Your task to perform on an android device: turn notification dots off Image 0: 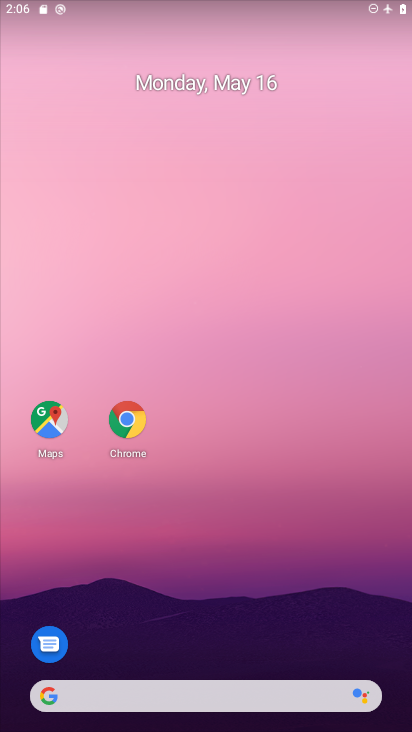
Step 0: drag from (235, 571) to (130, 4)
Your task to perform on an android device: turn notification dots off Image 1: 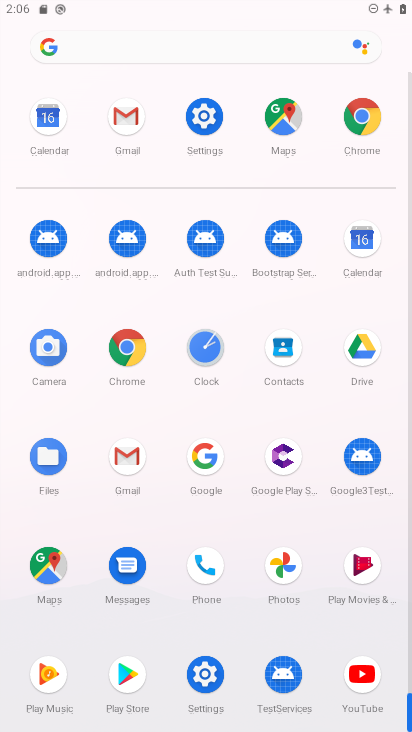
Step 1: click (195, 125)
Your task to perform on an android device: turn notification dots off Image 2: 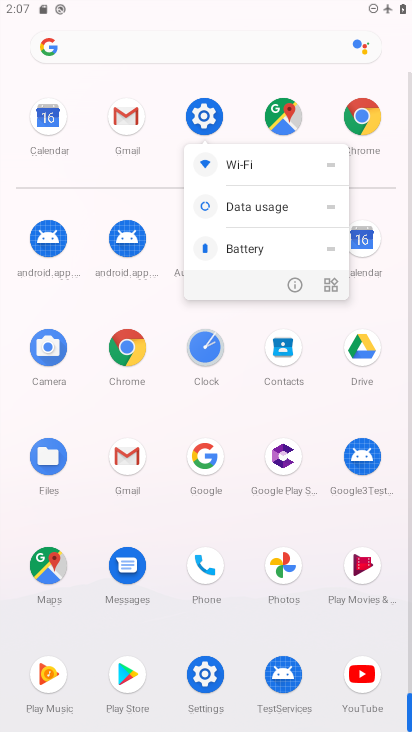
Step 2: click (300, 287)
Your task to perform on an android device: turn notification dots off Image 3: 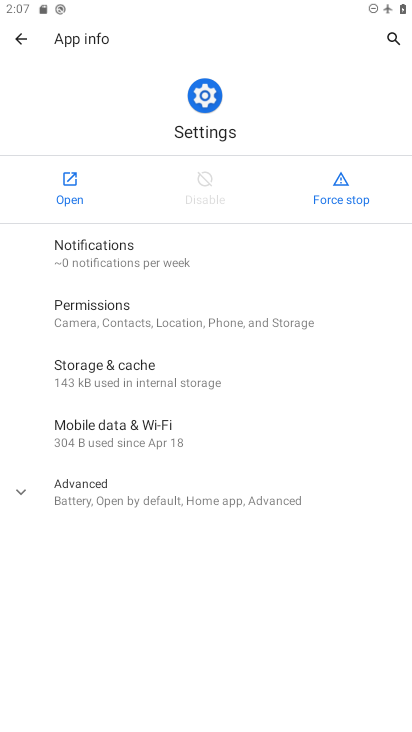
Step 3: click (73, 192)
Your task to perform on an android device: turn notification dots off Image 4: 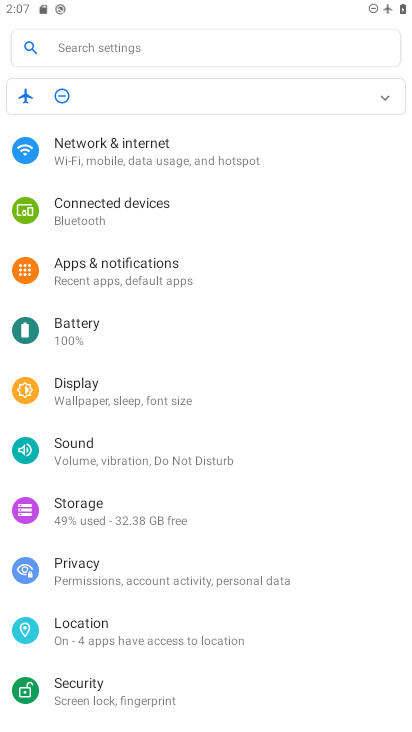
Step 4: drag from (155, 584) to (252, 238)
Your task to perform on an android device: turn notification dots off Image 5: 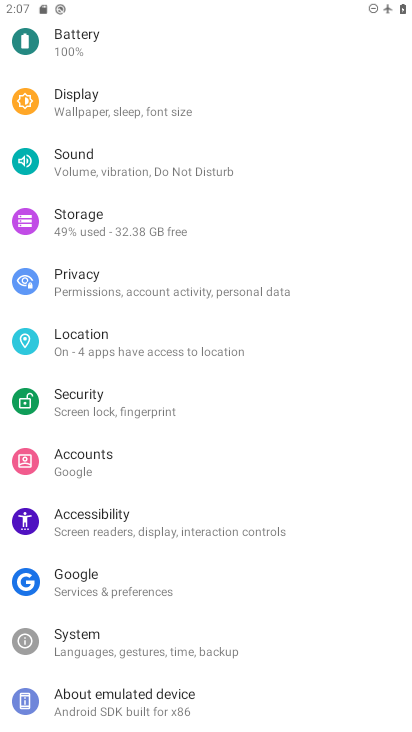
Step 5: drag from (167, 569) to (311, 174)
Your task to perform on an android device: turn notification dots off Image 6: 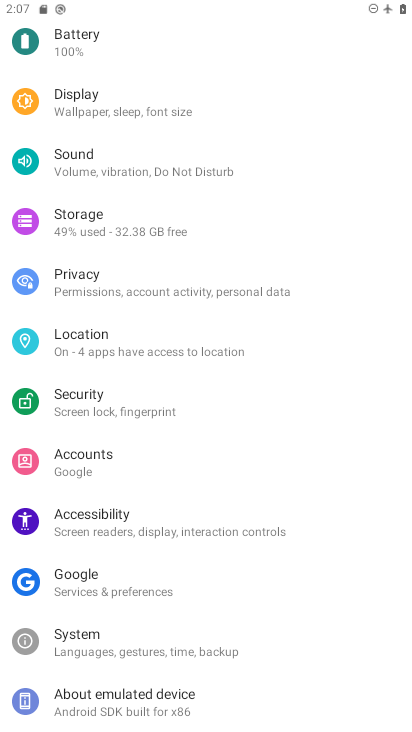
Step 6: drag from (194, 557) to (261, 225)
Your task to perform on an android device: turn notification dots off Image 7: 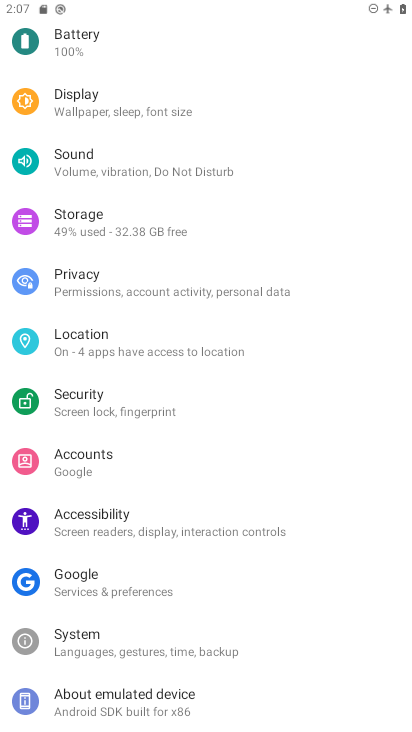
Step 7: drag from (183, 596) to (256, 148)
Your task to perform on an android device: turn notification dots off Image 8: 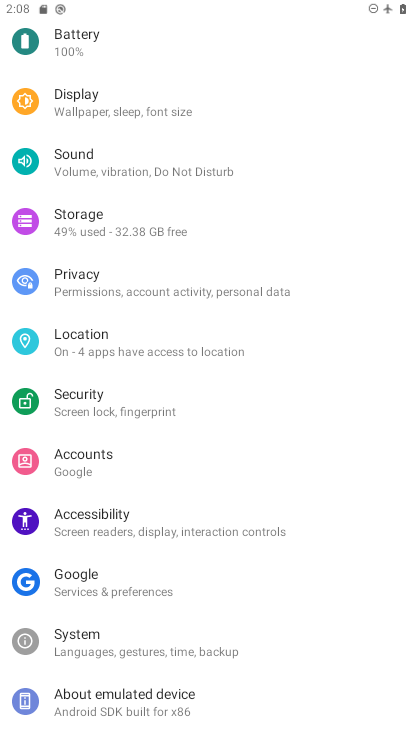
Step 8: drag from (121, 98) to (212, 562)
Your task to perform on an android device: turn notification dots off Image 9: 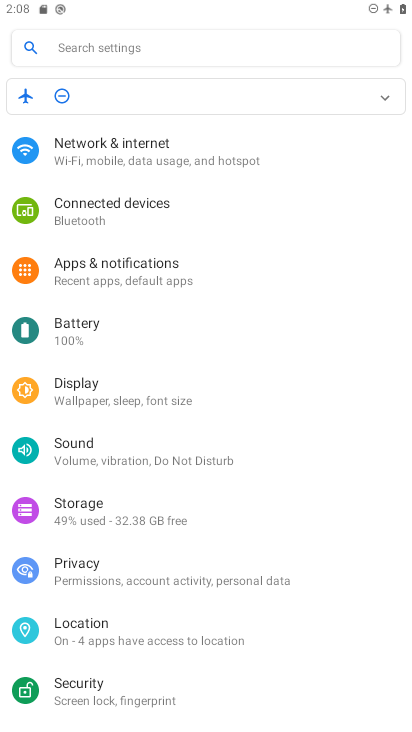
Step 9: click (159, 273)
Your task to perform on an android device: turn notification dots off Image 10: 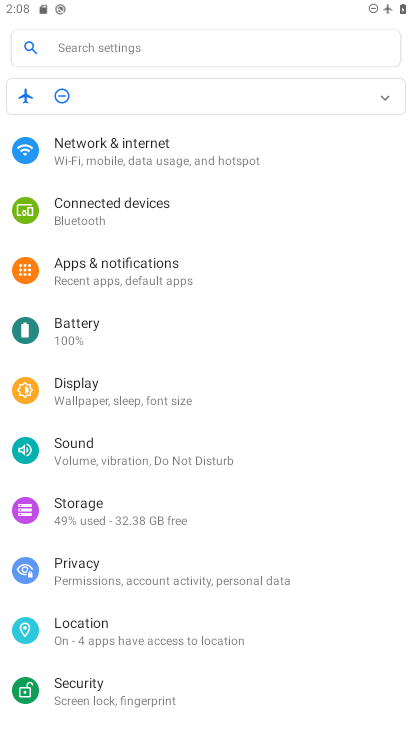
Step 10: click (159, 273)
Your task to perform on an android device: turn notification dots off Image 11: 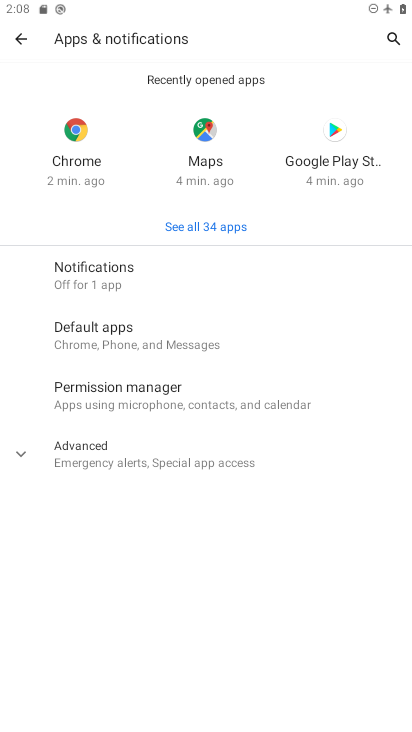
Step 11: click (133, 295)
Your task to perform on an android device: turn notification dots off Image 12: 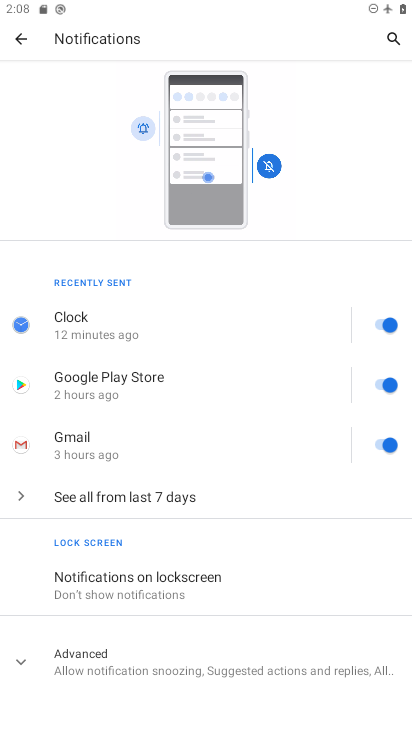
Step 12: drag from (246, 614) to (399, 100)
Your task to perform on an android device: turn notification dots off Image 13: 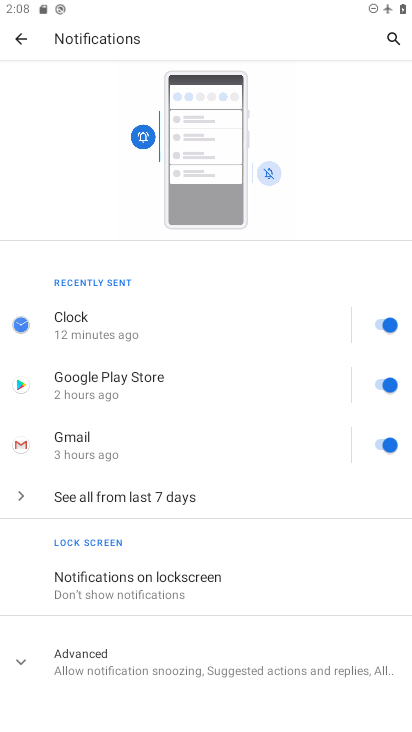
Step 13: click (155, 661)
Your task to perform on an android device: turn notification dots off Image 14: 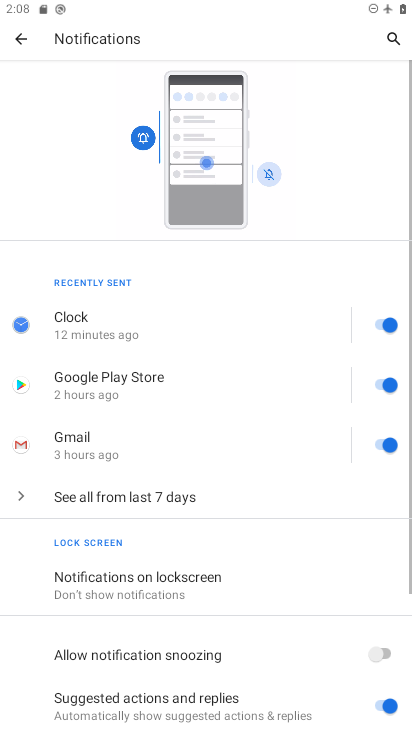
Step 14: drag from (155, 661) to (343, 143)
Your task to perform on an android device: turn notification dots off Image 15: 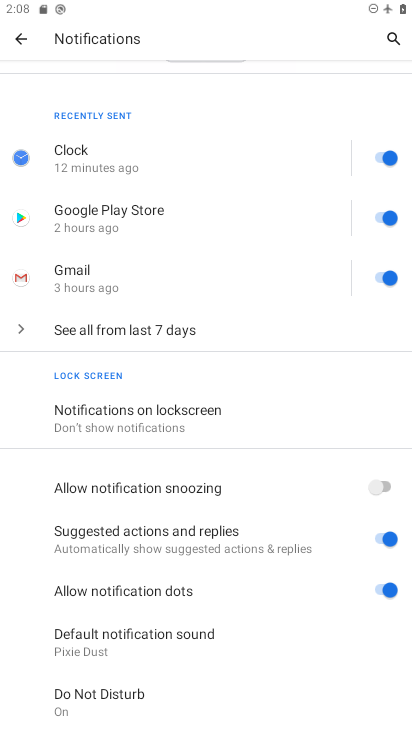
Step 15: drag from (215, 669) to (328, 217)
Your task to perform on an android device: turn notification dots off Image 16: 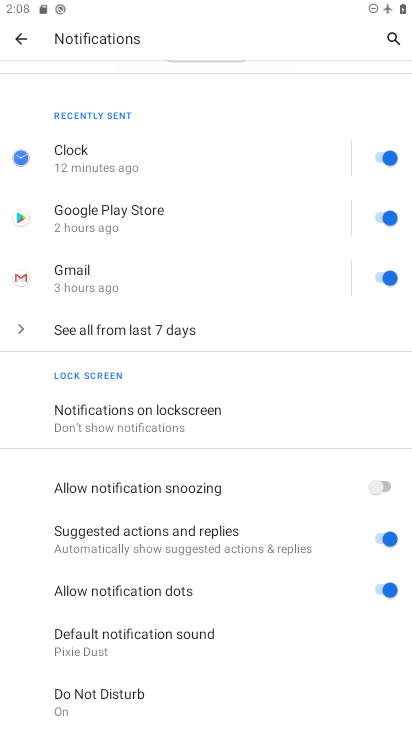
Step 16: drag from (253, 686) to (242, 284)
Your task to perform on an android device: turn notification dots off Image 17: 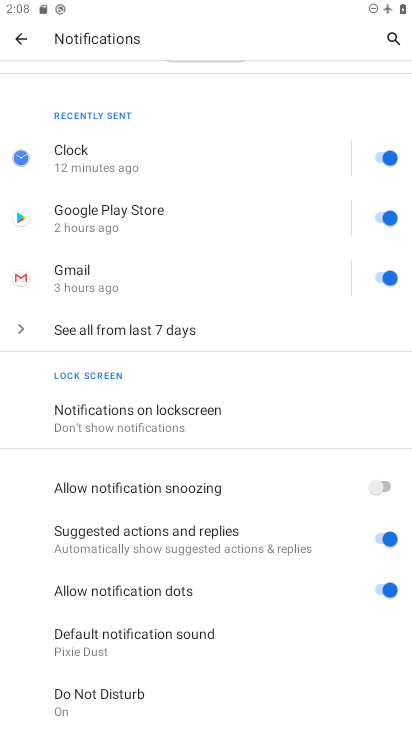
Step 17: drag from (166, 710) to (237, 355)
Your task to perform on an android device: turn notification dots off Image 18: 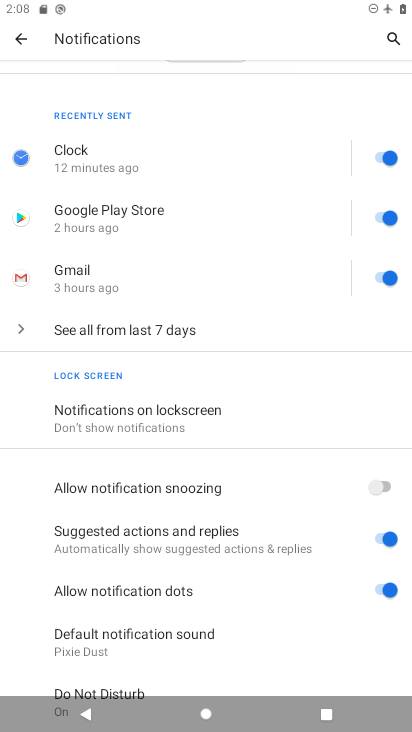
Step 18: drag from (210, 237) to (261, 709)
Your task to perform on an android device: turn notification dots off Image 19: 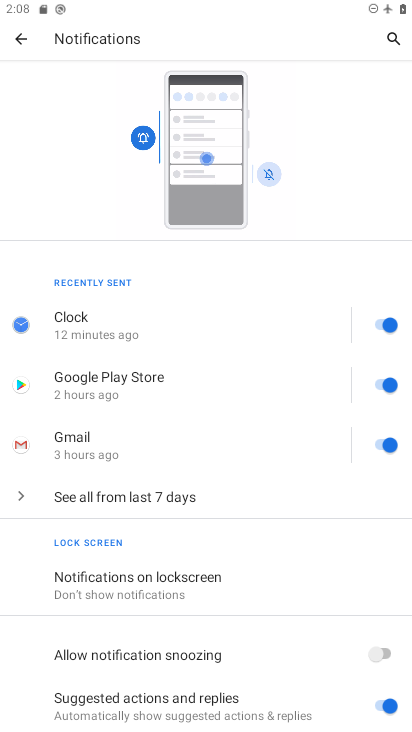
Step 19: click (19, 43)
Your task to perform on an android device: turn notification dots off Image 20: 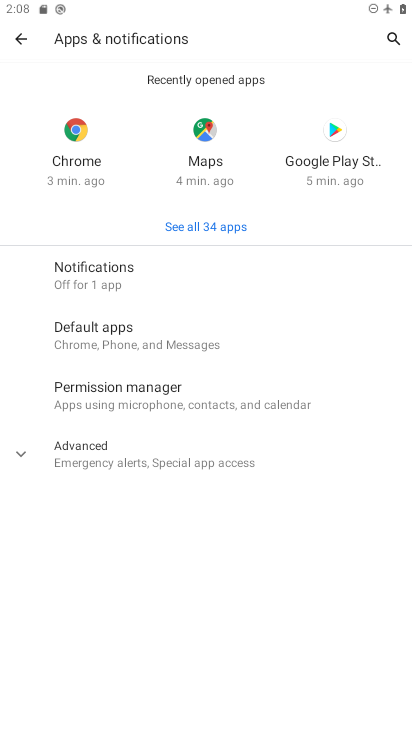
Step 20: click (218, 268)
Your task to perform on an android device: turn notification dots off Image 21: 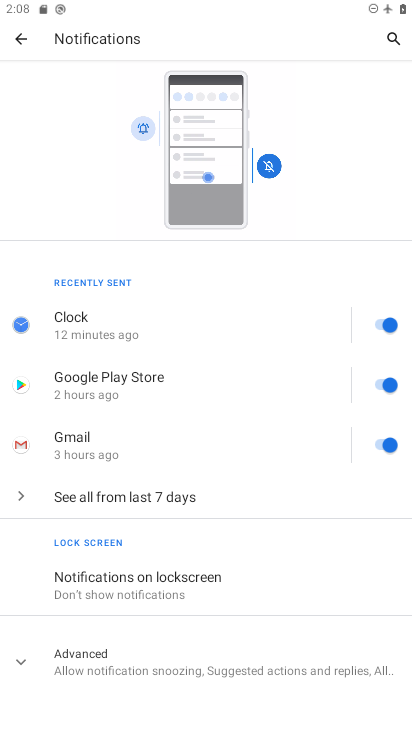
Step 21: drag from (276, 669) to (313, 89)
Your task to perform on an android device: turn notification dots off Image 22: 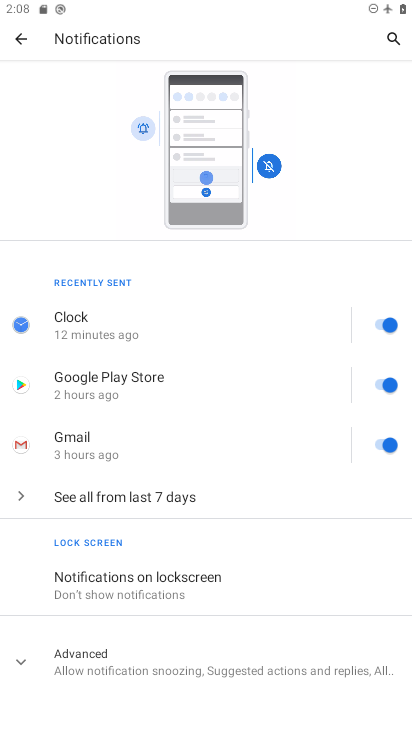
Step 22: click (165, 688)
Your task to perform on an android device: turn notification dots off Image 23: 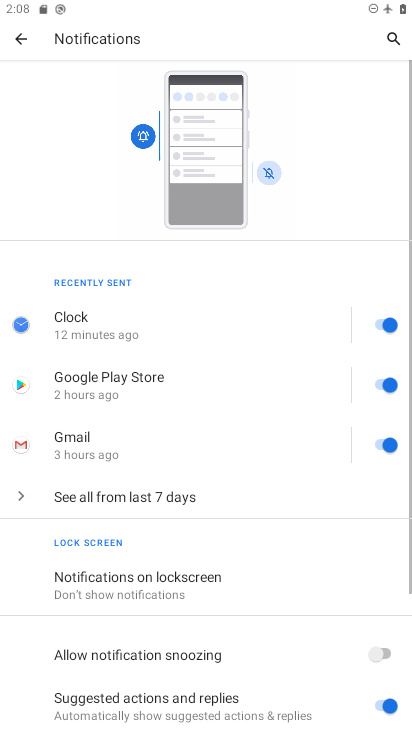
Step 23: drag from (180, 662) to (341, 91)
Your task to perform on an android device: turn notification dots off Image 24: 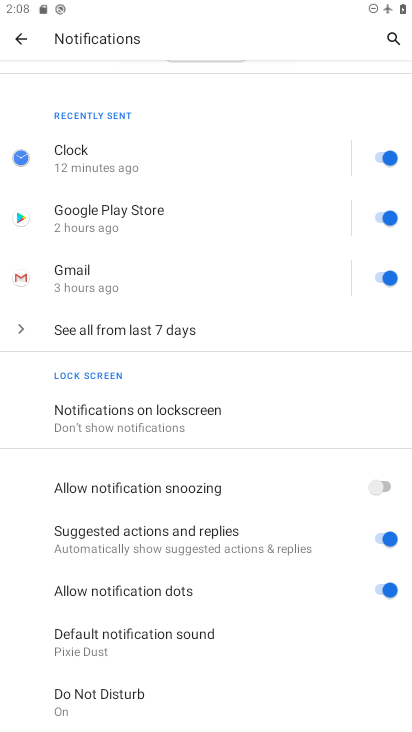
Step 24: drag from (216, 631) to (328, 220)
Your task to perform on an android device: turn notification dots off Image 25: 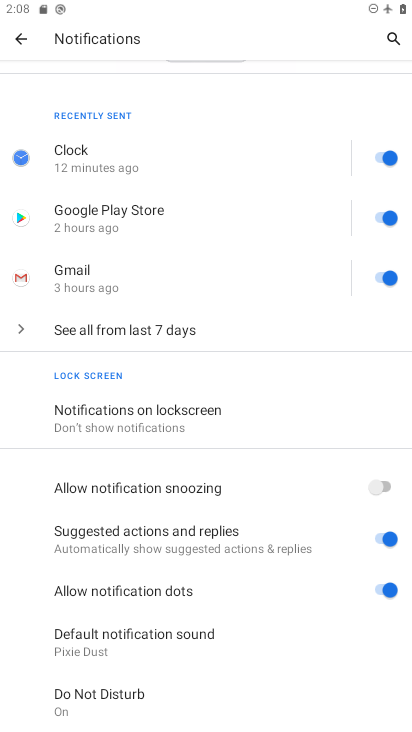
Step 25: drag from (172, 683) to (210, 427)
Your task to perform on an android device: turn notification dots off Image 26: 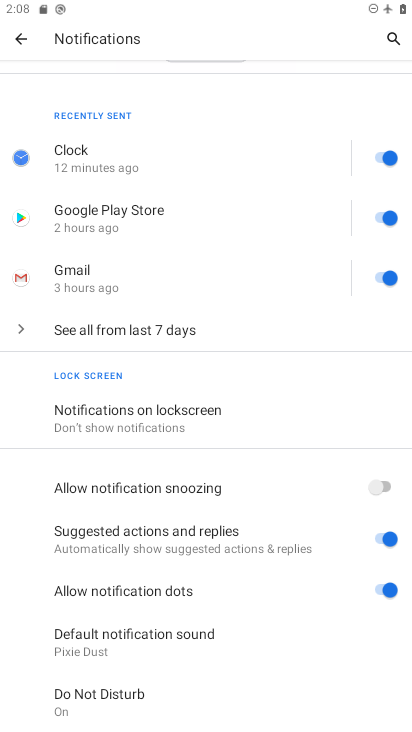
Step 26: drag from (235, 662) to (289, 431)
Your task to perform on an android device: turn notification dots off Image 27: 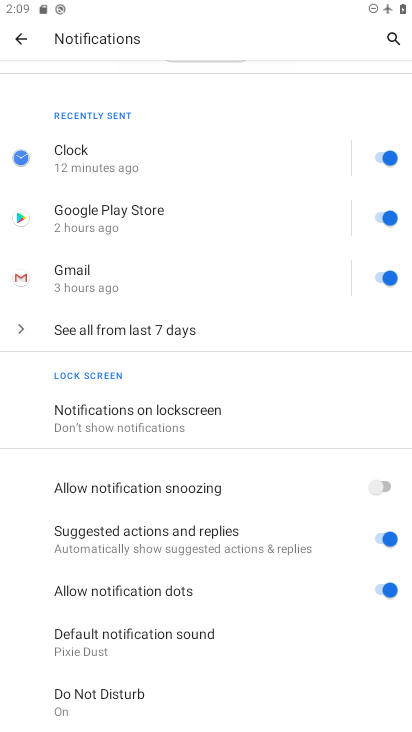
Step 27: click (372, 592)
Your task to perform on an android device: turn notification dots off Image 28: 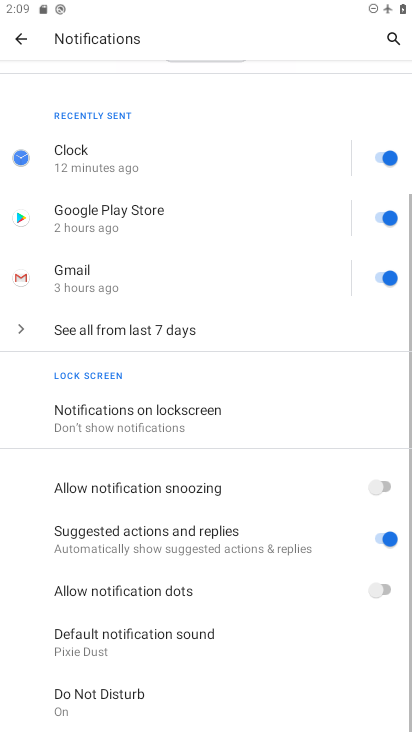
Step 28: task complete